Your task to perform on an android device: Search for Mexican restaurants on Maps Image 0: 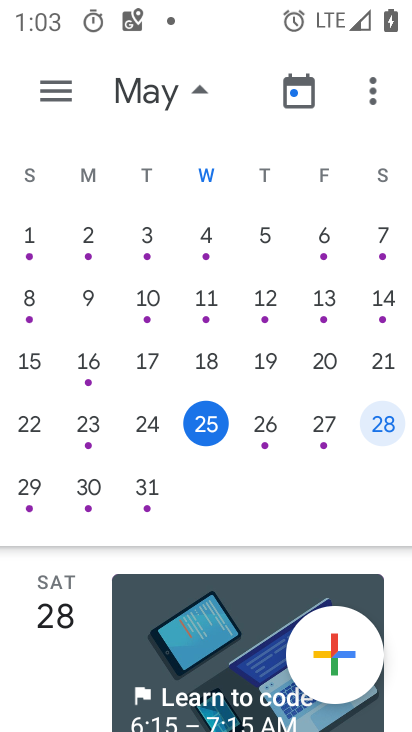
Step 0: press home button
Your task to perform on an android device: Search for Mexican restaurants on Maps Image 1: 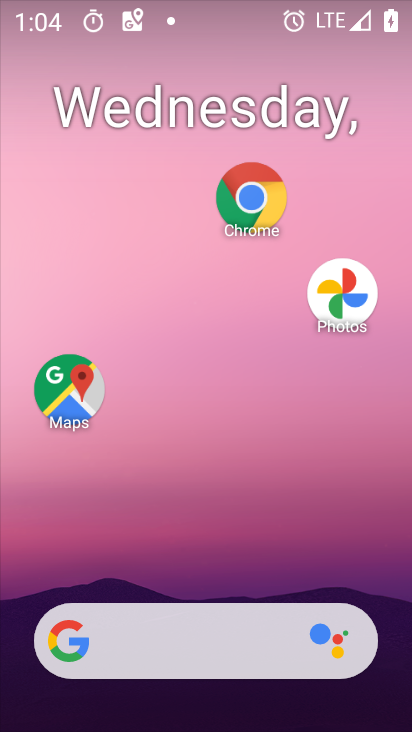
Step 1: drag from (212, 706) to (177, 210)
Your task to perform on an android device: Search for Mexican restaurants on Maps Image 2: 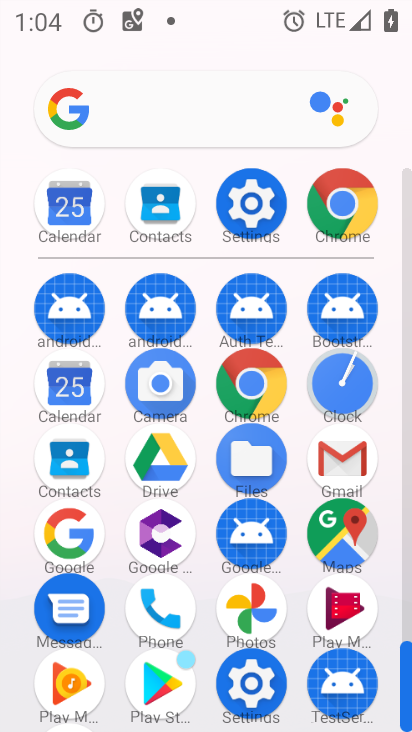
Step 2: click (350, 554)
Your task to perform on an android device: Search for Mexican restaurants on Maps Image 3: 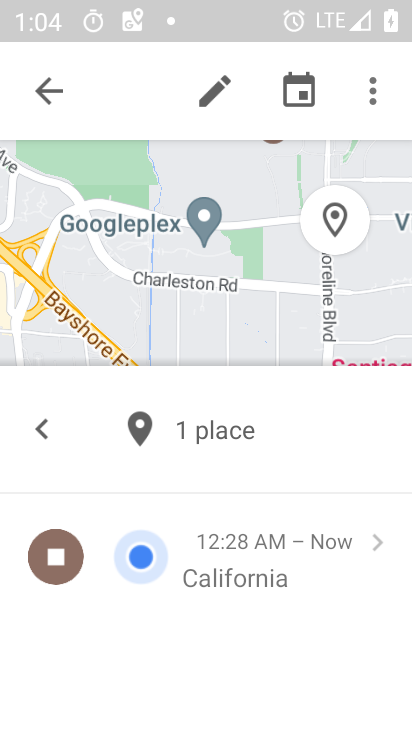
Step 3: click (58, 99)
Your task to perform on an android device: Search for Mexican restaurants on Maps Image 4: 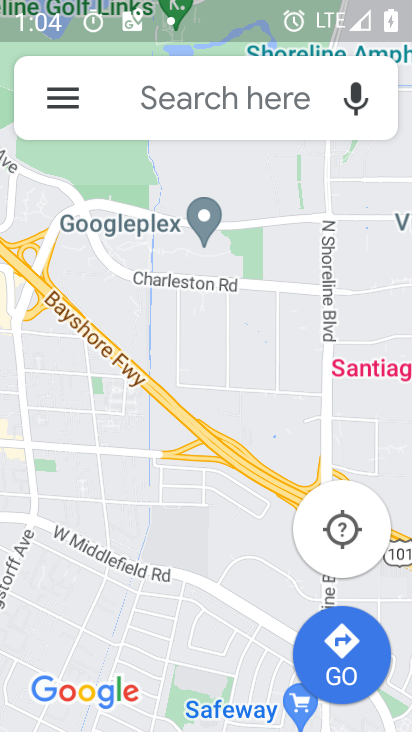
Step 4: click (135, 94)
Your task to perform on an android device: Search for Mexican restaurants on Maps Image 5: 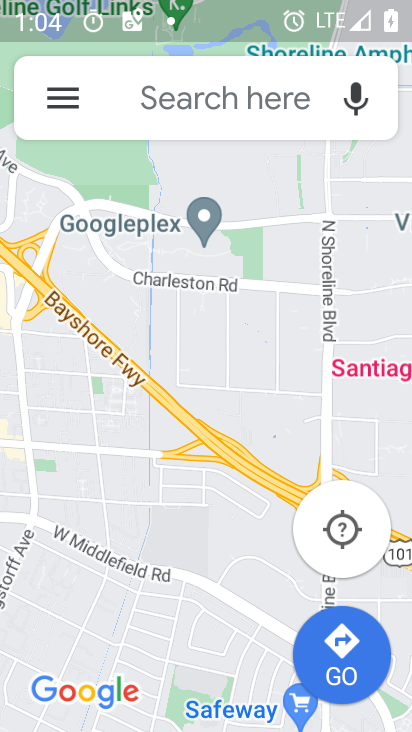
Step 5: click (136, 92)
Your task to perform on an android device: Search for Mexican restaurants on Maps Image 6: 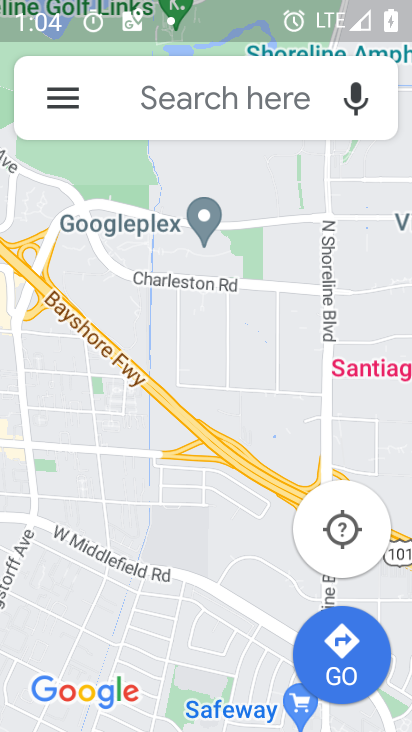
Step 6: click (155, 102)
Your task to perform on an android device: Search for Mexican restaurants on Maps Image 7: 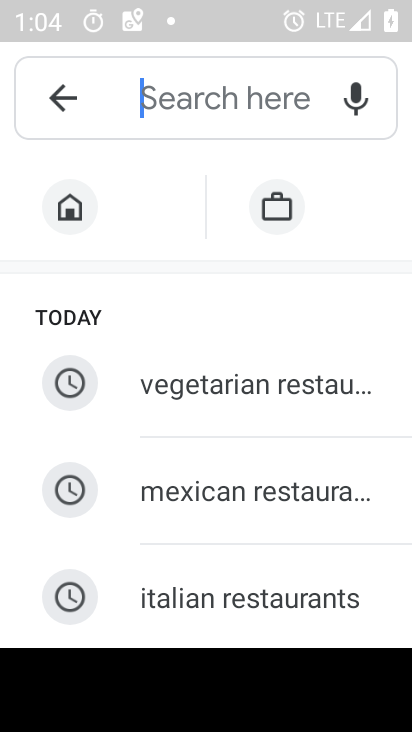
Step 7: click (268, 487)
Your task to perform on an android device: Search for Mexican restaurants on Maps Image 8: 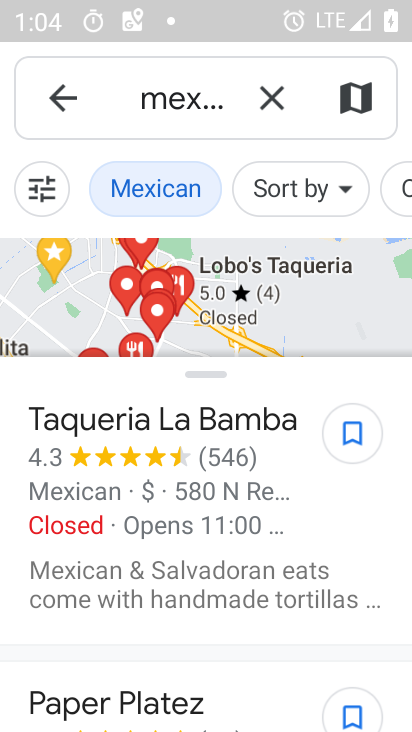
Step 8: task complete